Your task to perform on an android device: turn on sleep mode Image 0: 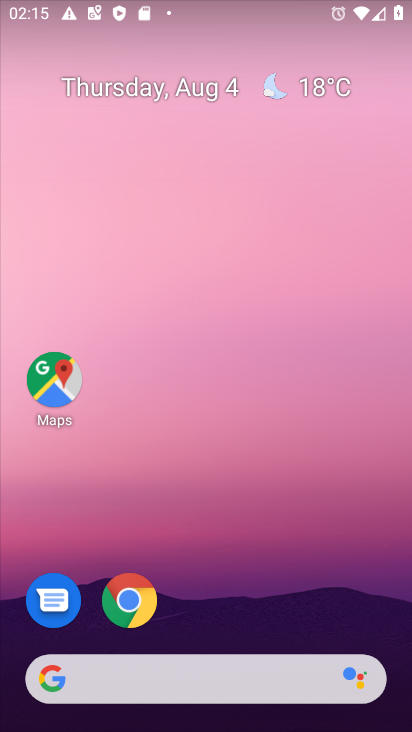
Step 0: drag from (146, 683) to (355, 113)
Your task to perform on an android device: turn on sleep mode Image 1: 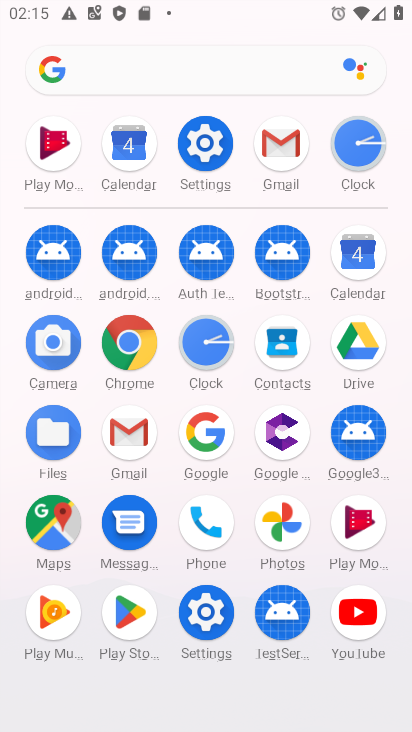
Step 1: click (206, 149)
Your task to perform on an android device: turn on sleep mode Image 2: 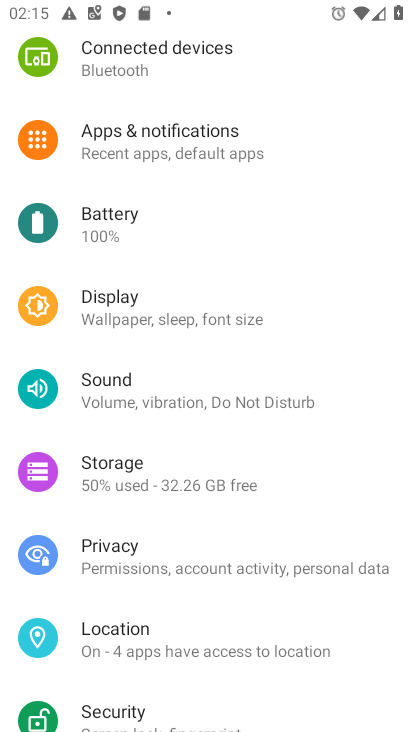
Step 2: click (189, 324)
Your task to perform on an android device: turn on sleep mode Image 3: 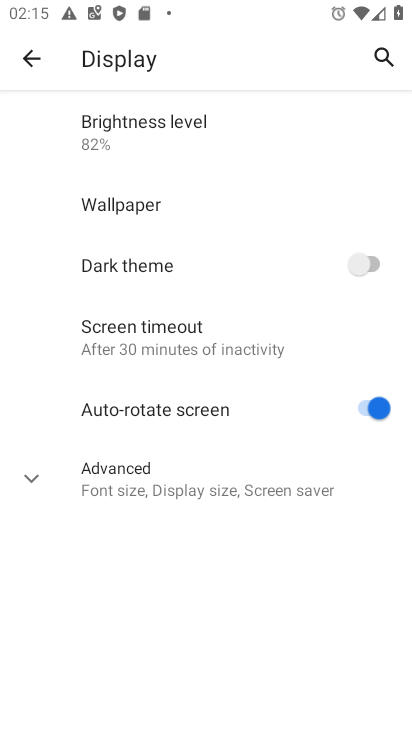
Step 3: task complete